Your task to perform on an android device: Show me productivity apps on the Play Store Image 0: 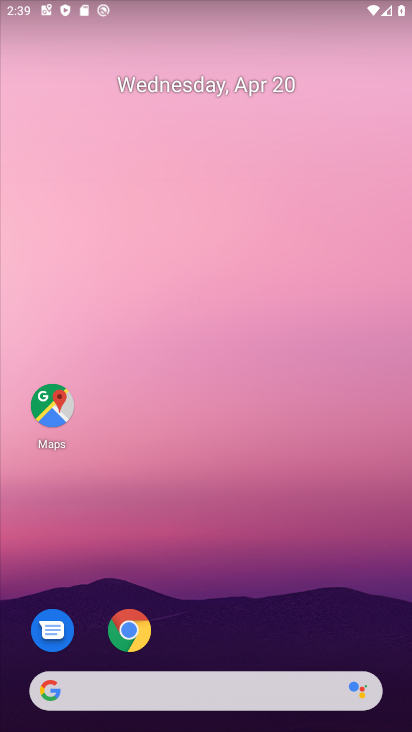
Step 0: drag from (254, 675) to (352, 10)
Your task to perform on an android device: Show me productivity apps on the Play Store Image 1: 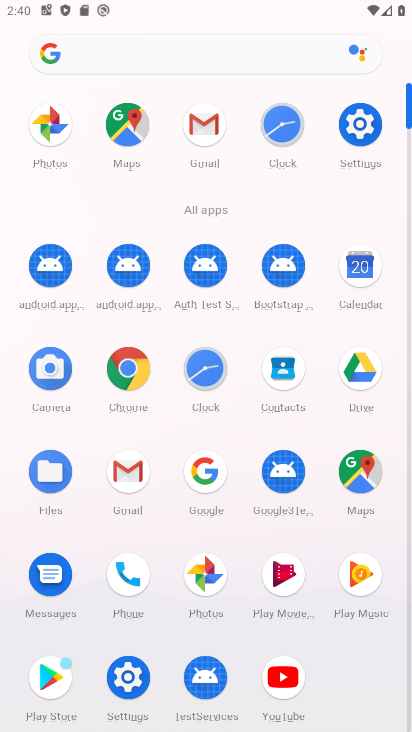
Step 1: click (53, 677)
Your task to perform on an android device: Show me productivity apps on the Play Store Image 2: 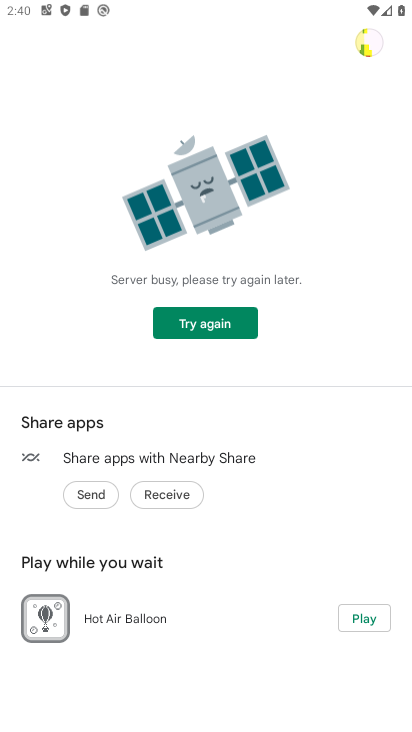
Step 2: click (229, 323)
Your task to perform on an android device: Show me productivity apps on the Play Store Image 3: 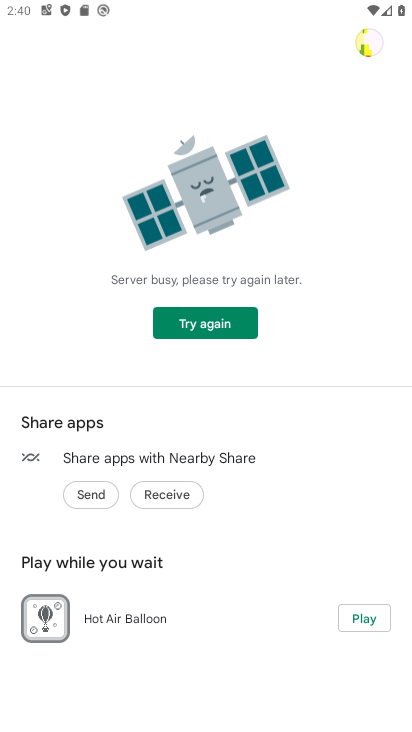
Step 3: click (229, 323)
Your task to perform on an android device: Show me productivity apps on the Play Store Image 4: 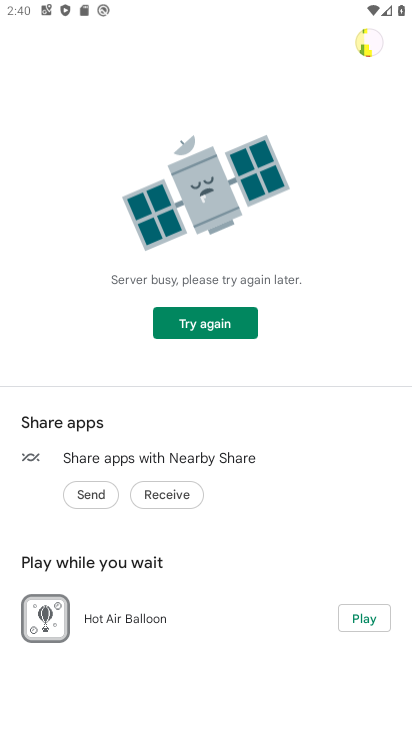
Step 4: click (233, 321)
Your task to perform on an android device: Show me productivity apps on the Play Store Image 5: 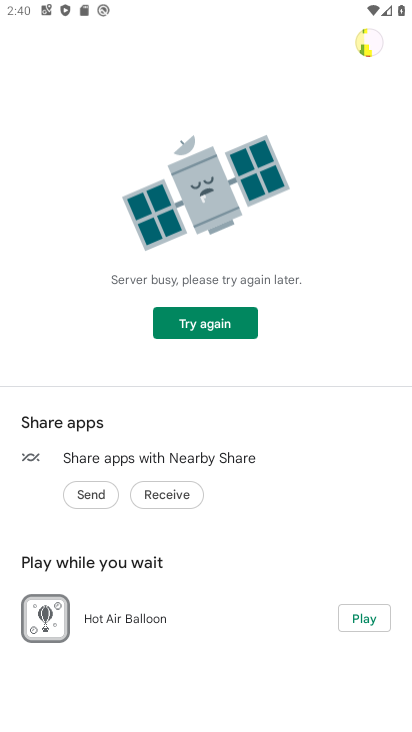
Step 5: click (233, 332)
Your task to perform on an android device: Show me productivity apps on the Play Store Image 6: 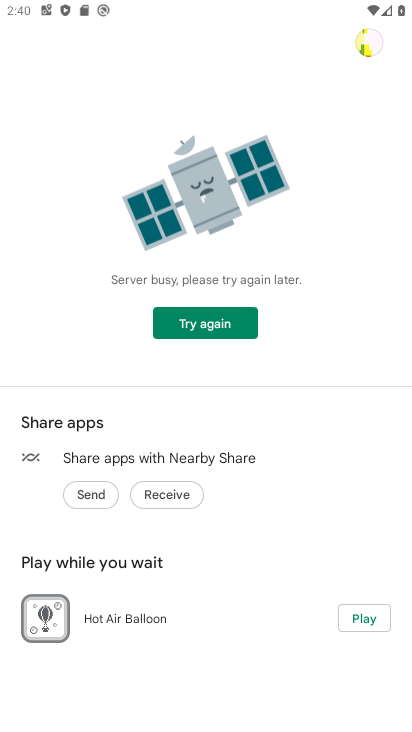
Step 6: task complete